Your task to perform on an android device: What is the news today? Image 0: 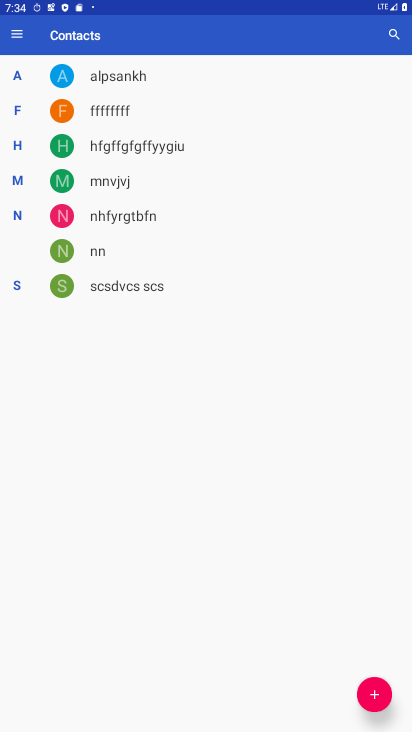
Step 0: press home button
Your task to perform on an android device: What is the news today? Image 1: 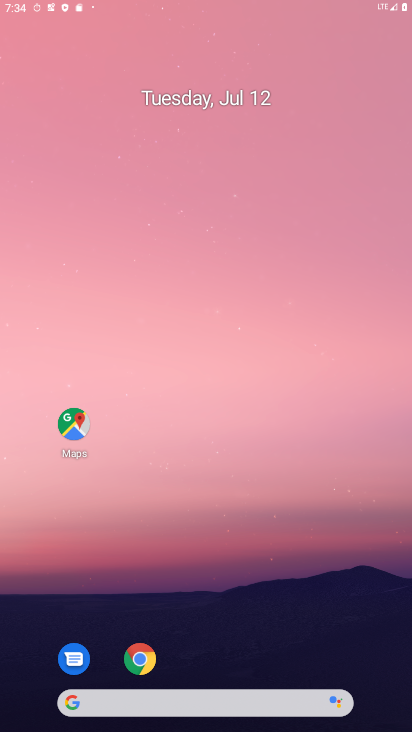
Step 1: drag from (368, 677) to (273, 38)
Your task to perform on an android device: What is the news today? Image 2: 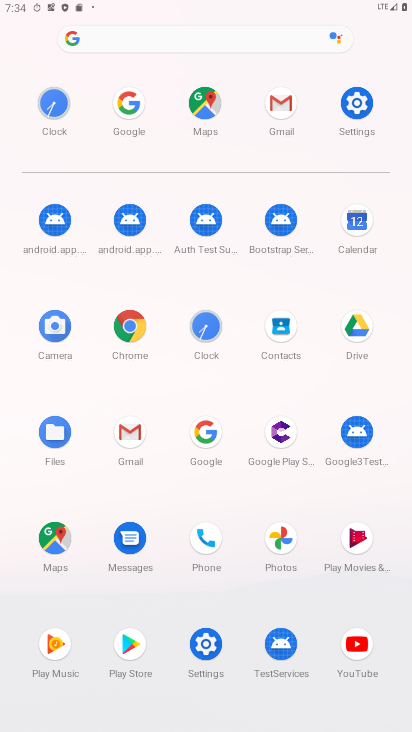
Step 2: click (207, 442)
Your task to perform on an android device: What is the news today? Image 3: 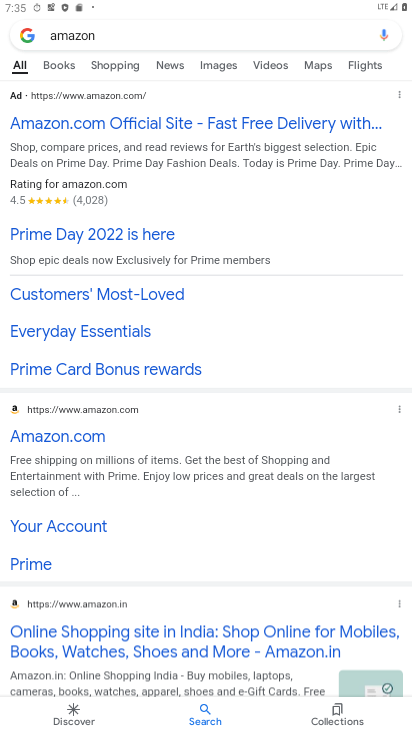
Step 3: press back button
Your task to perform on an android device: What is the news today? Image 4: 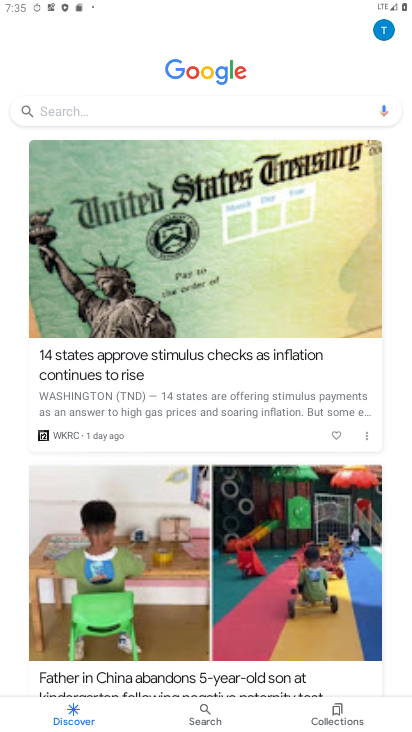
Step 4: click (103, 106)
Your task to perform on an android device: What is the news today? Image 5: 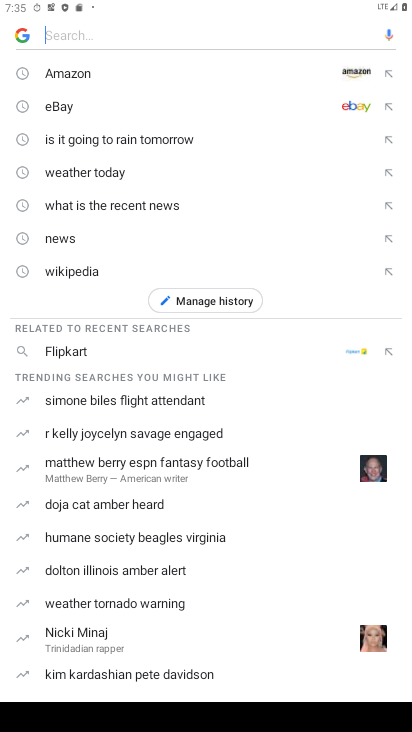
Step 5: type "What is the news today?"
Your task to perform on an android device: What is the news today? Image 6: 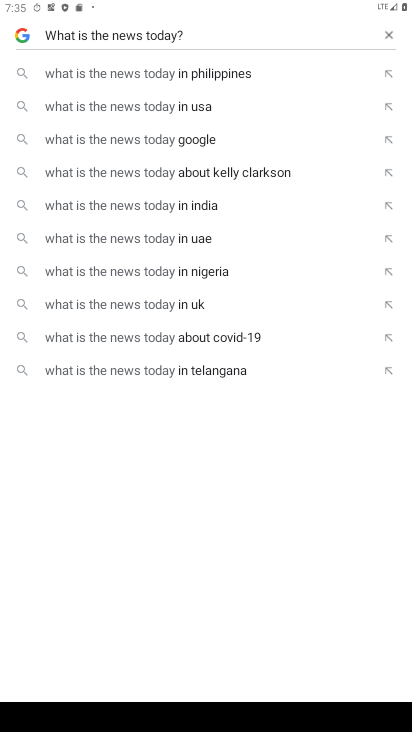
Step 6: click (164, 212)
Your task to perform on an android device: What is the news today? Image 7: 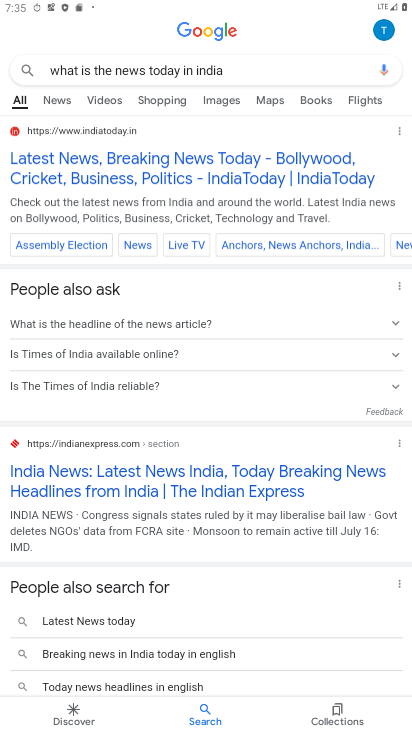
Step 7: task complete